Your task to perform on an android device: Go to privacy settings Image 0: 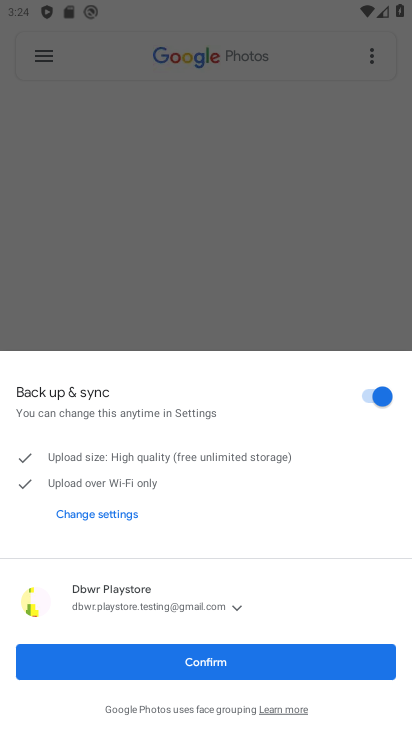
Step 0: click (228, 650)
Your task to perform on an android device: Go to privacy settings Image 1: 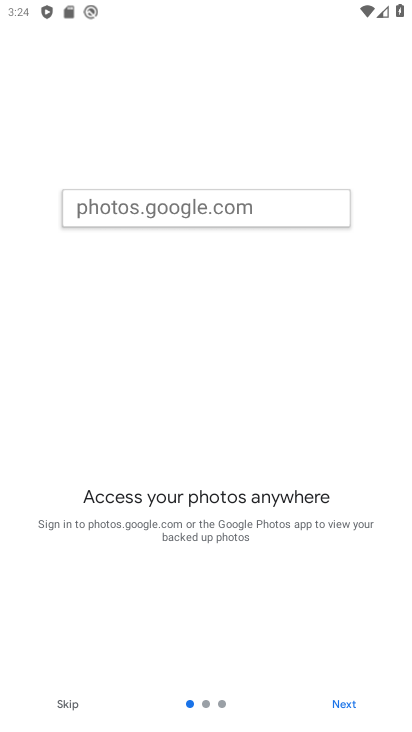
Step 1: click (352, 696)
Your task to perform on an android device: Go to privacy settings Image 2: 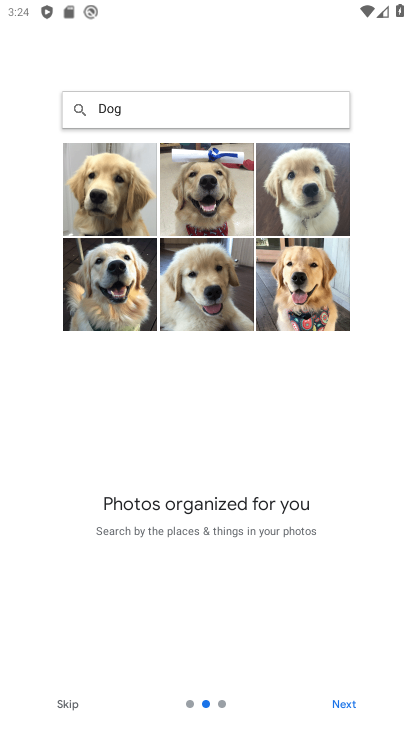
Step 2: click (341, 696)
Your task to perform on an android device: Go to privacy settings Image 3: 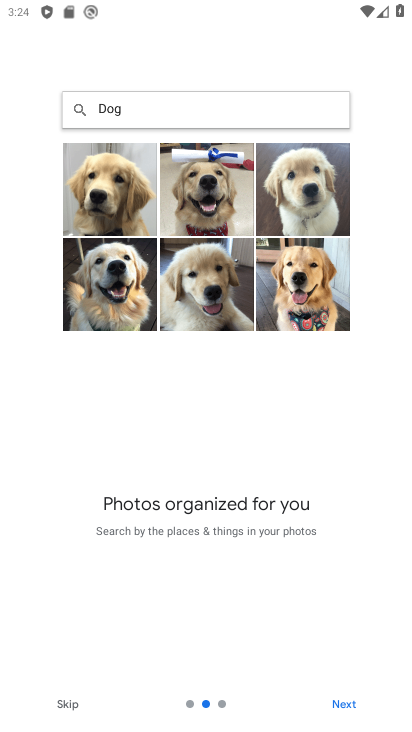
Step 3: click (341, 696)
Your task to perform on an android device: Go to privacy settings Image 4: 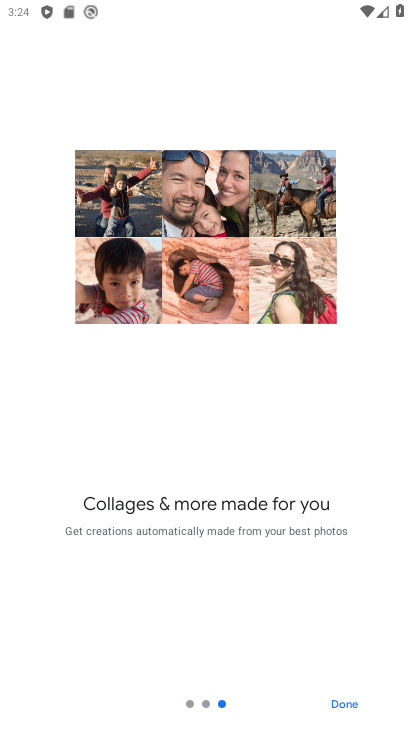
Step 4: click (342, 696)
Your task to perform on an android device: Go to privacy settings Image 5: 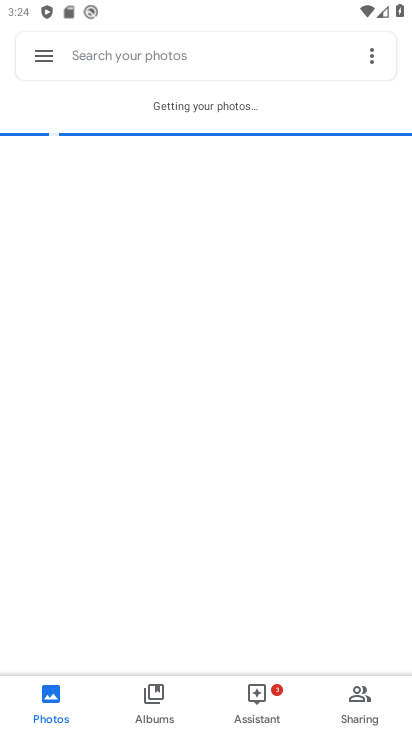
Step 5: press home button
Your task to perform on an android device: Go to privacy settings Image 6: 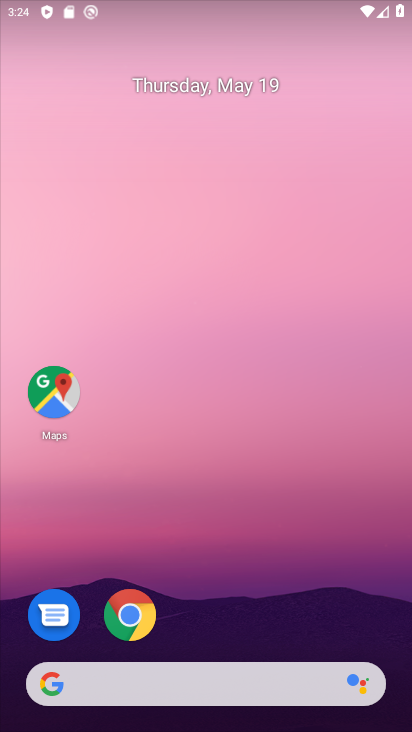
Step 6: drag from (248, 623) to (168, 255)
Your task to perform on an android device: Go to privacy settings Image 7: 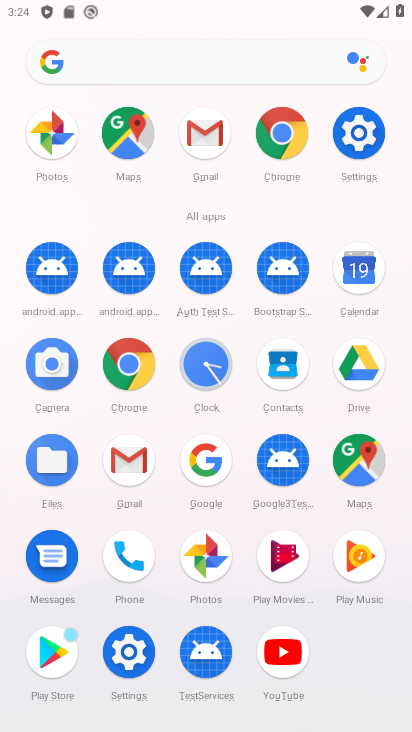
Step 7: click (361, 135)
Your task to perform on an android device: Go to privacy settings Image 8: 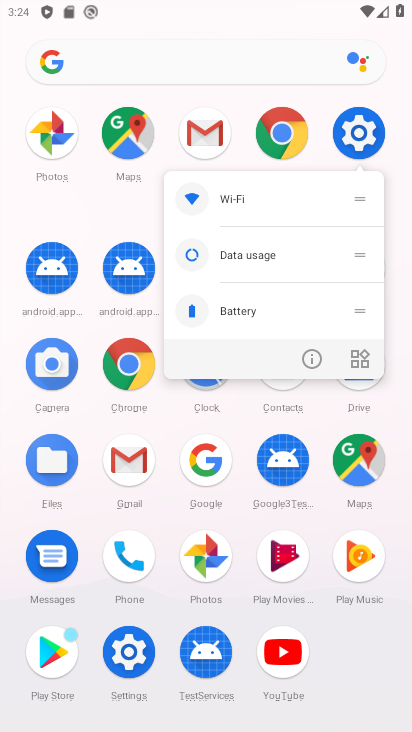
Step 8: click (361, 135)
Your task to perform on an android device: Go to privacy settings Image 9: 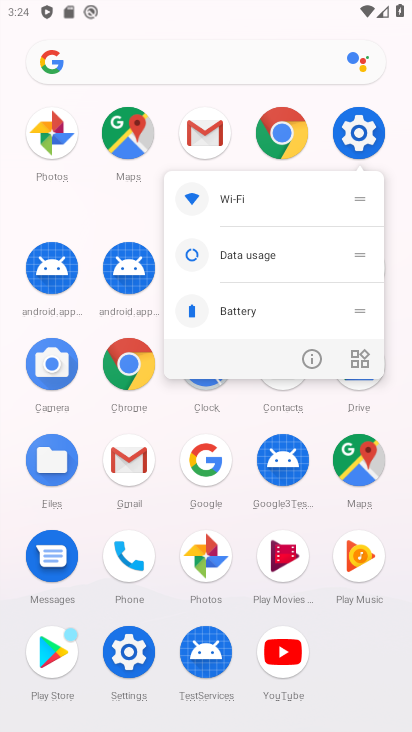
Step 9: click (361, 134)
Your task to perform on an android device: Go to privacy settings Image 10: 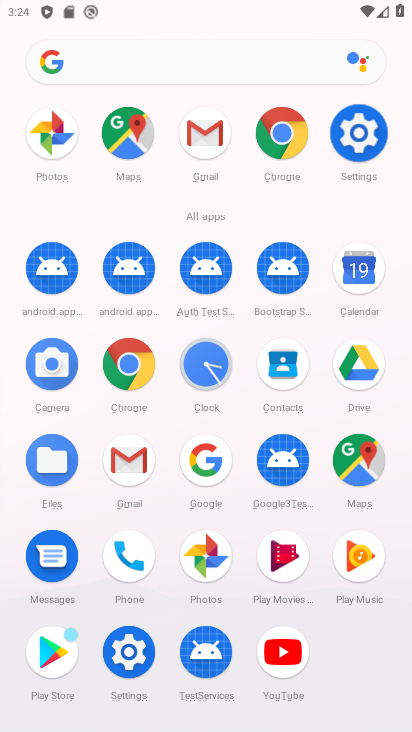
Step 10: click (361, 134)
Your task to perform on an android device: Go to privacy settings Image 11: 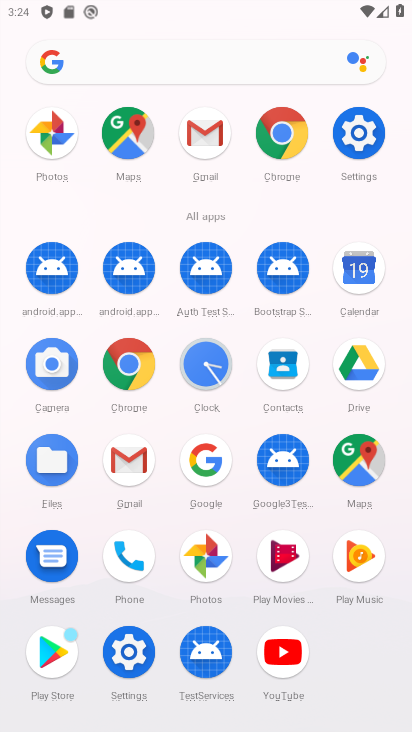
Step 11: click (351, 125)
Your task to perform on an android device: Go to privacy settings Image 12: 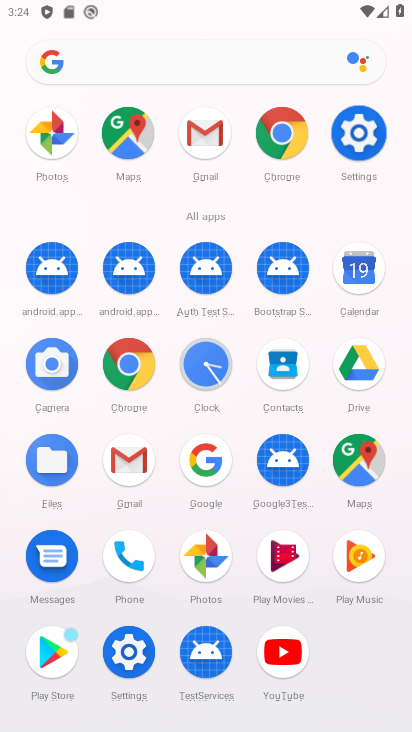
Step 12: click (353, 125)
Your task to perform on an android device: Go to privacy settings Image 13: 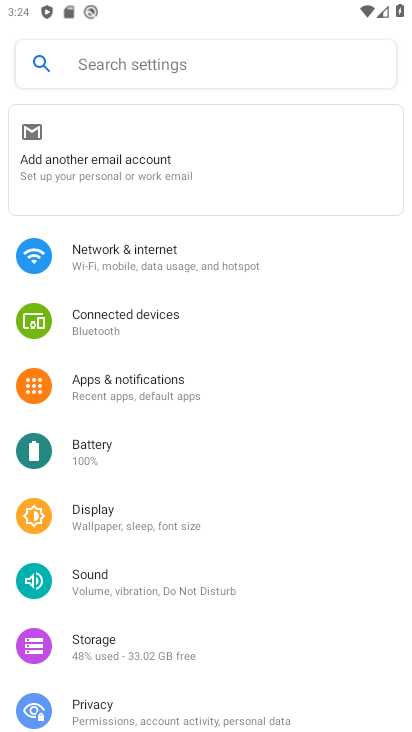
Step 13: drag from (167, 577) to (180, 197)
Your task to perform on an android device: Go to privacy settings Image 14: 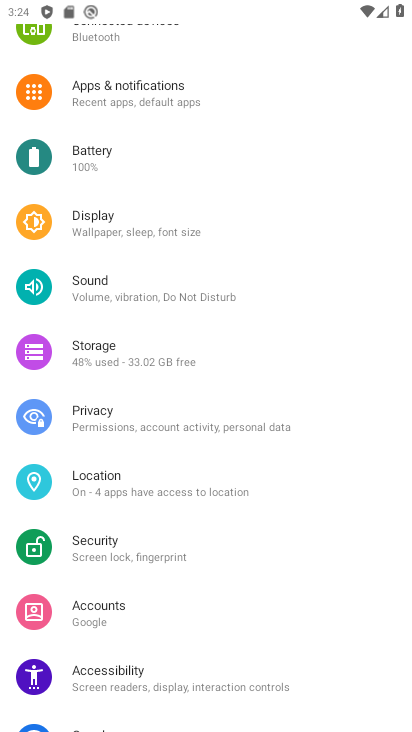
Step 14: drag from (305, 495) to (268, 233)
Your task to perform on an android device: Go to privacy settings Image 15: 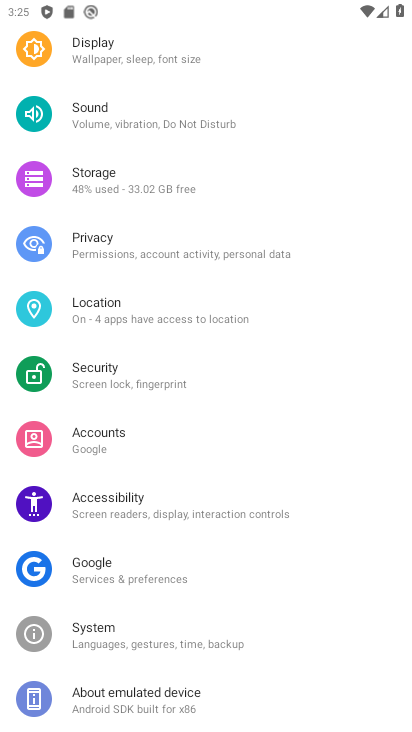
Step 15: click (95, 244)
Your task to perform on an android device: Go to privacy settings Image 16: 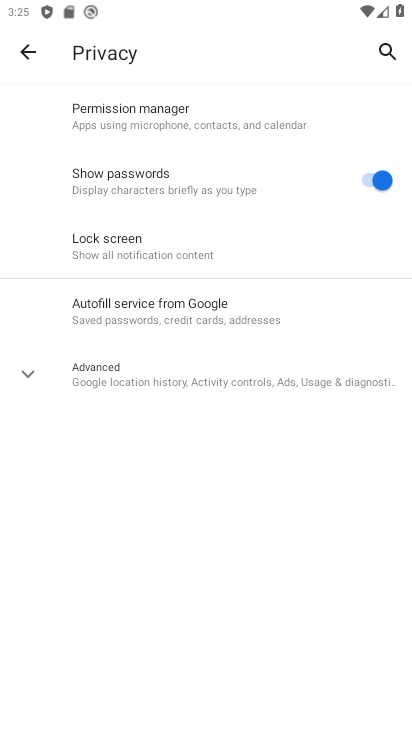
Step 16: task complete